Your task to perform on an android device: Open the calendar app, open the side menu, and click the "Day" option Image 0: 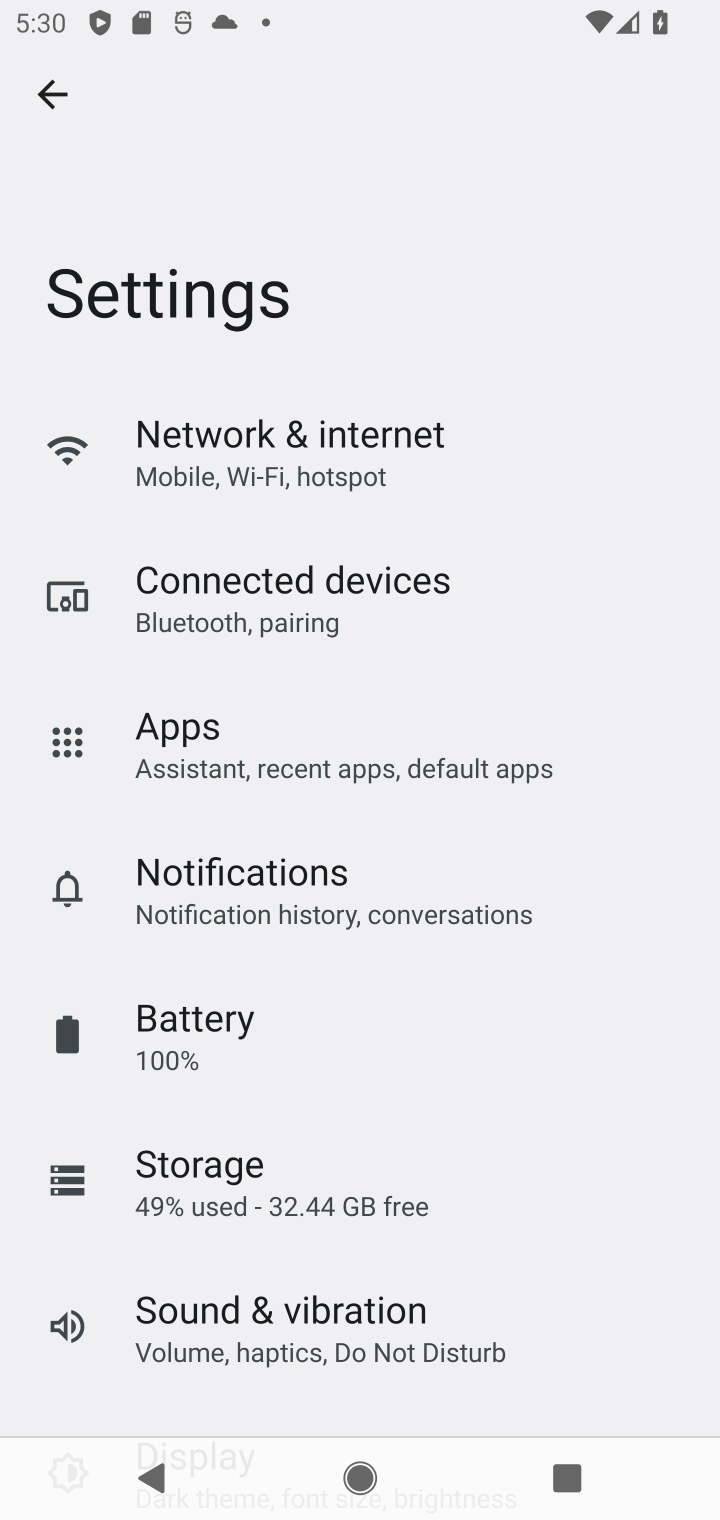
Step 0: press home button
Your task to perform on an android device: Open the calendar app, open the side menu, and click the "Day" option Image 1: 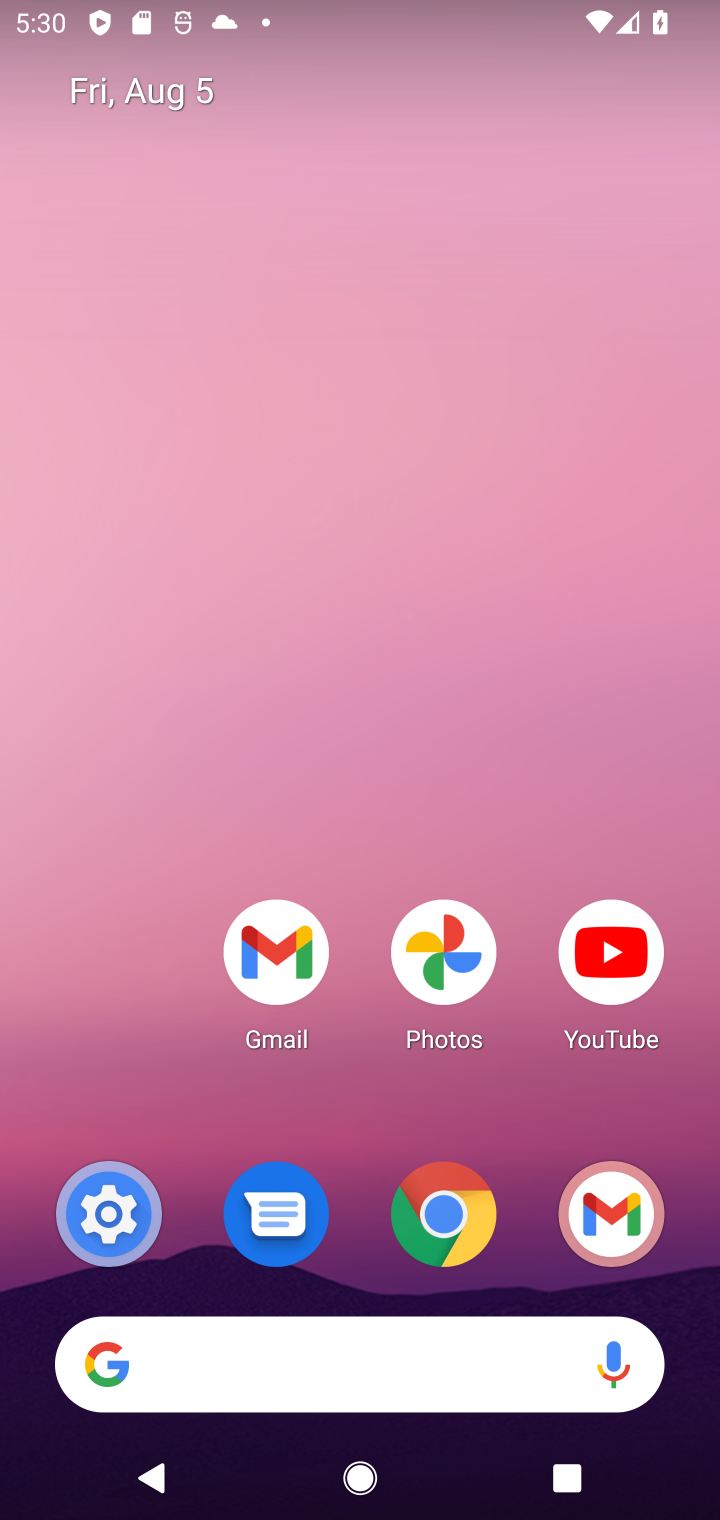
Step 1: drag from (156, 1038) to (264, 0)
Your task to perform on an android device: Open the calendar app, open the side menu, and click the "Day" option Image 2: 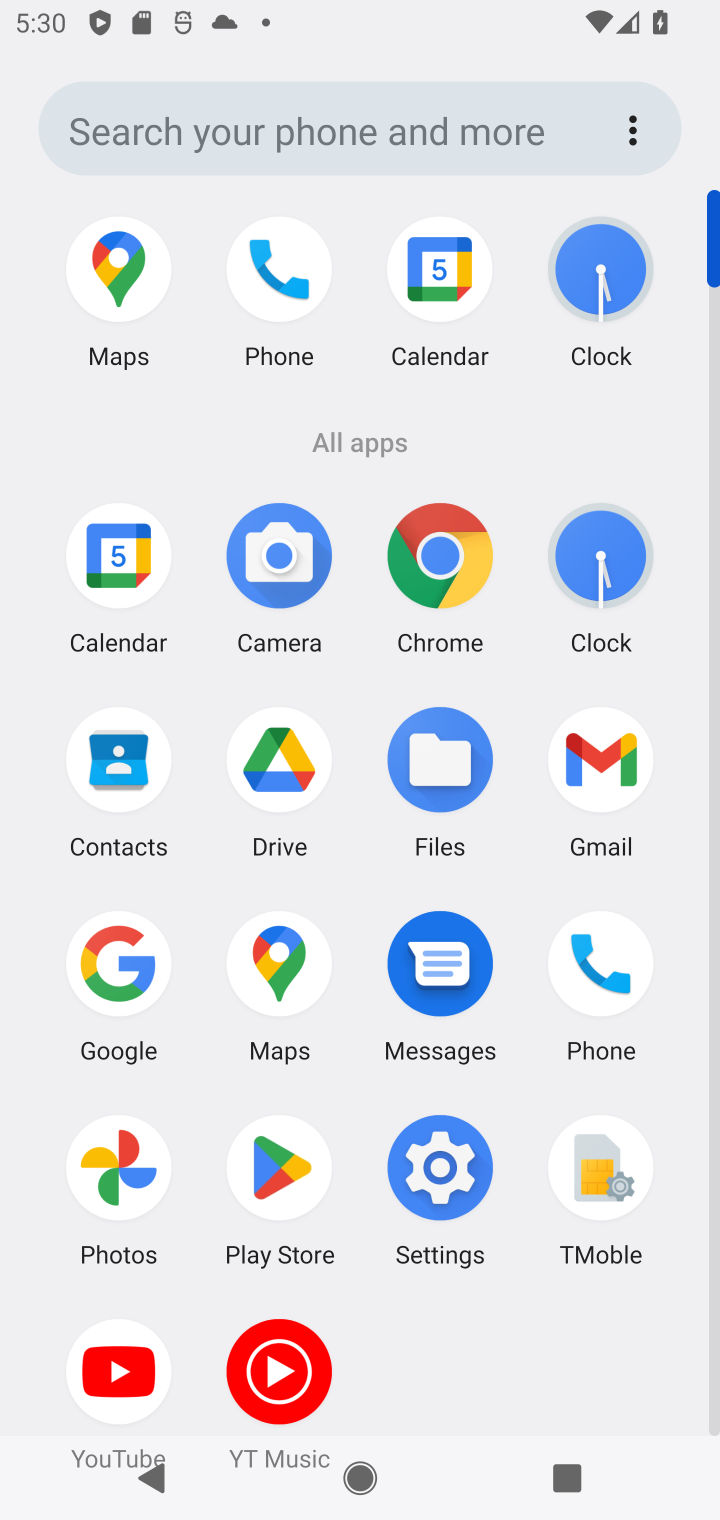
Step 2: click (135, 573)
Your task to perform on an android device: Open the calendar app, open the side menu, and click the "Day" option Image 3: 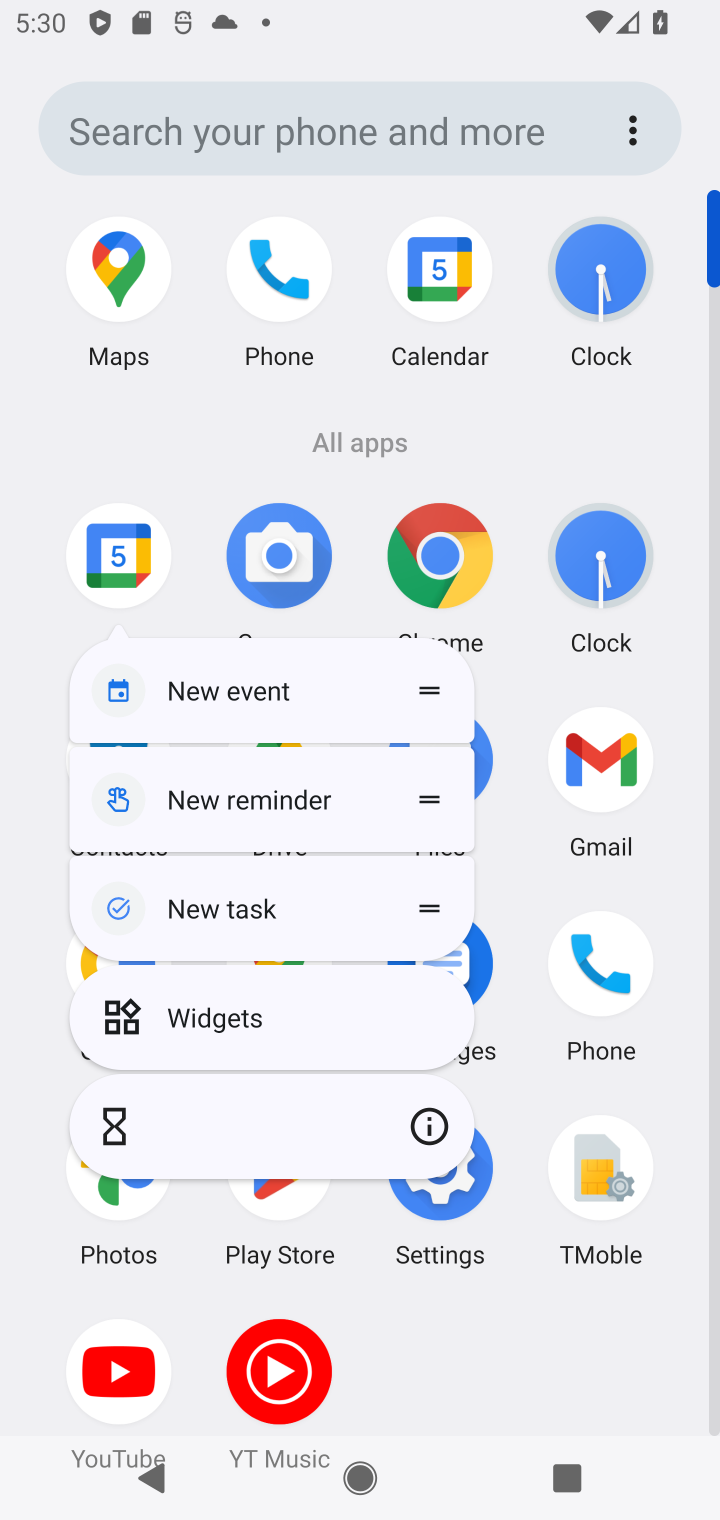
Step 3: click (125, 541)
Your task to perform on an android device: Open the calendar app, open the side menu, and click the "Day" option Image 4: 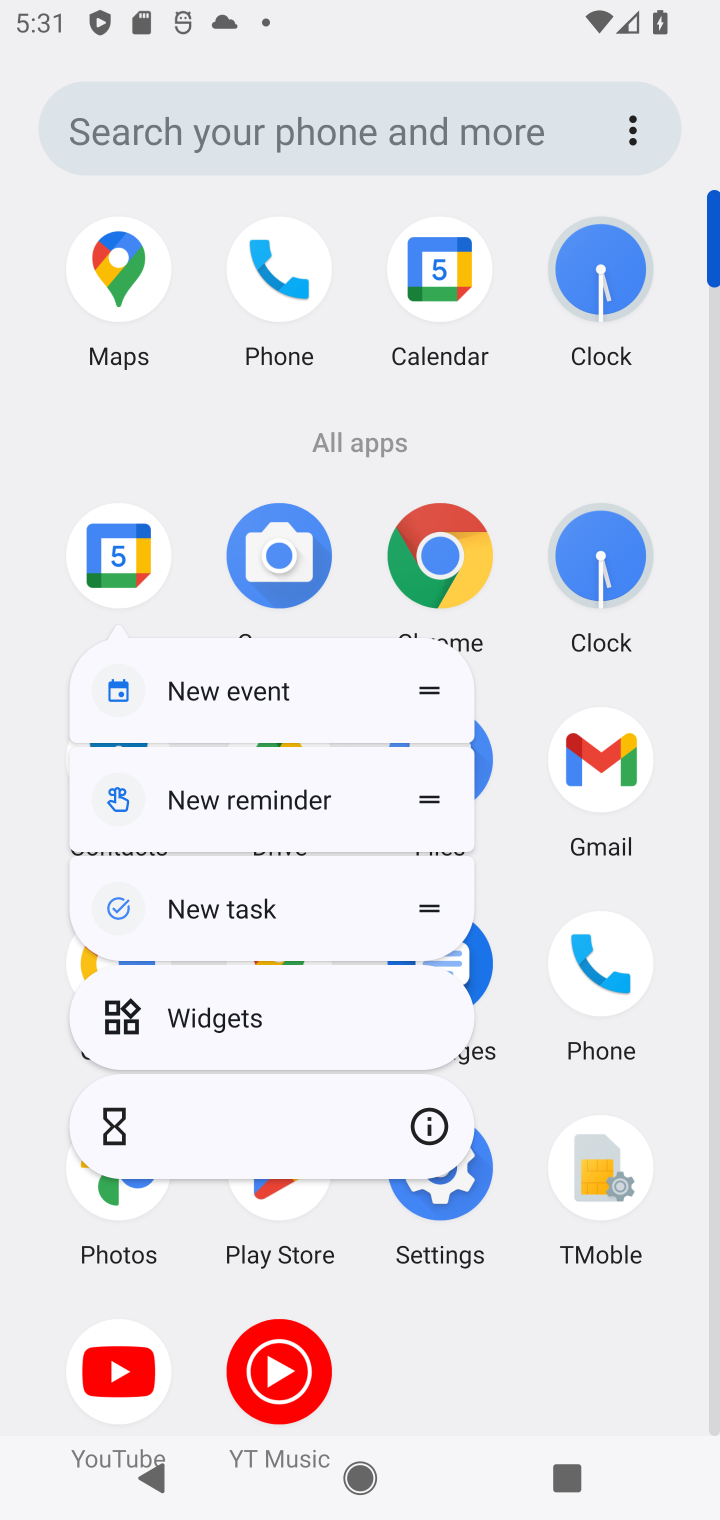
Step 4: click (125, 544)
Your task to perform on an android device: Open the calendar app, open the side menu, and click the "Day" option Image 5: 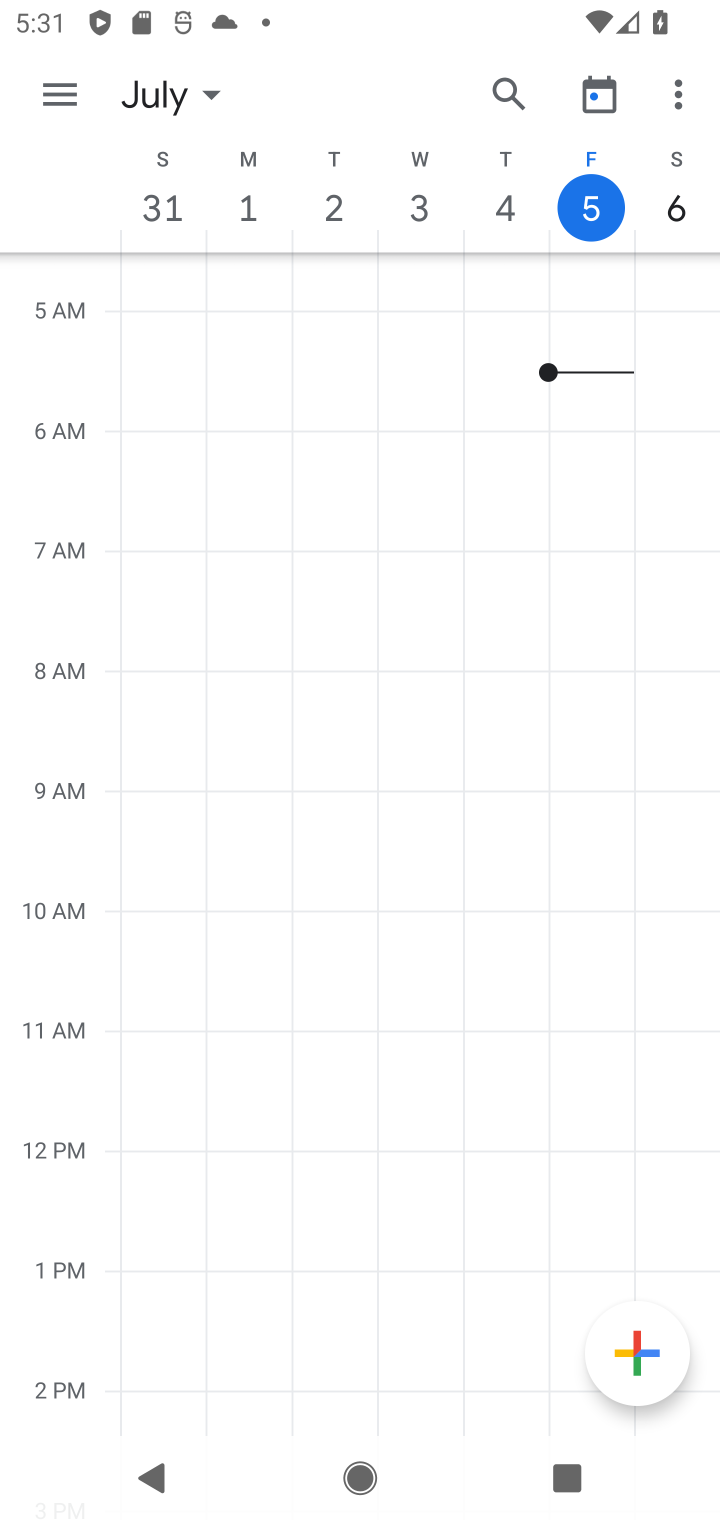
Step 5: drag from (397, 425) to (386, 1309)
Your task to perform on an android device: Open the calendar app, open the side menu, and click the "Day" option Image 6: 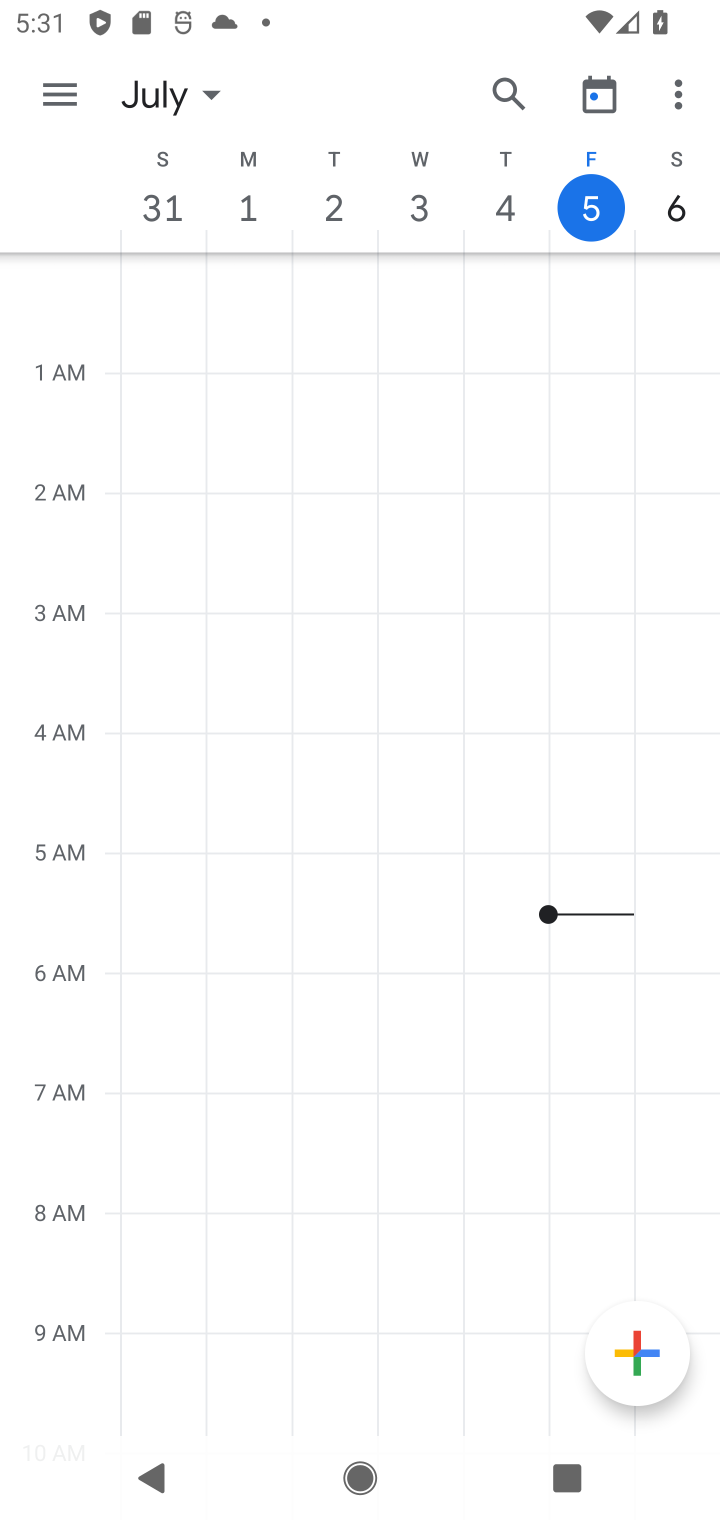
Step 6: drag from (390, 985) to (438, 56)
Your task to perform on an android device: Open the calendar app, open the side menu, and click the "Day" option Image 7: 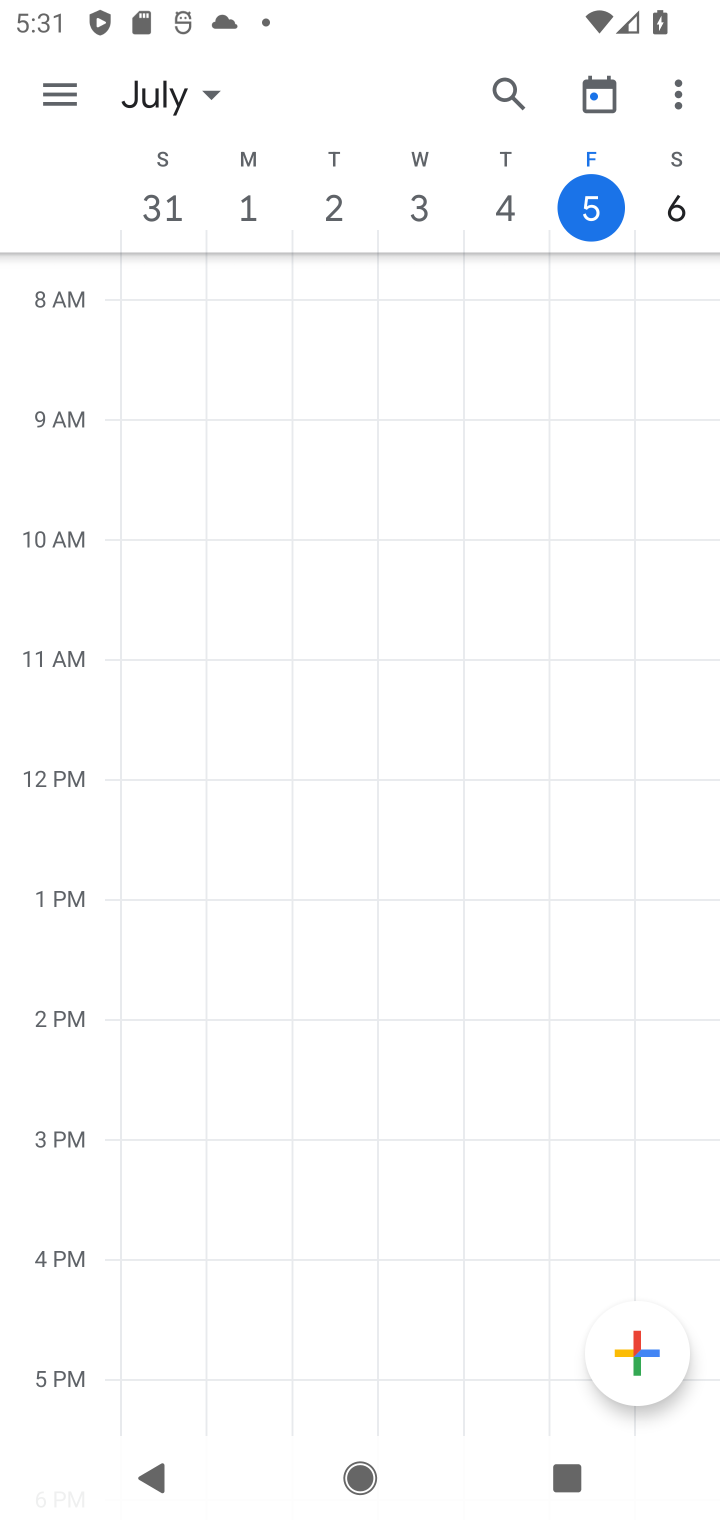
Step 7: drag from (378, 1067) to (435, 64)
Your task to perform on an android device: Open the calendar app, open the side menu, and click the "Day" option Image 8: 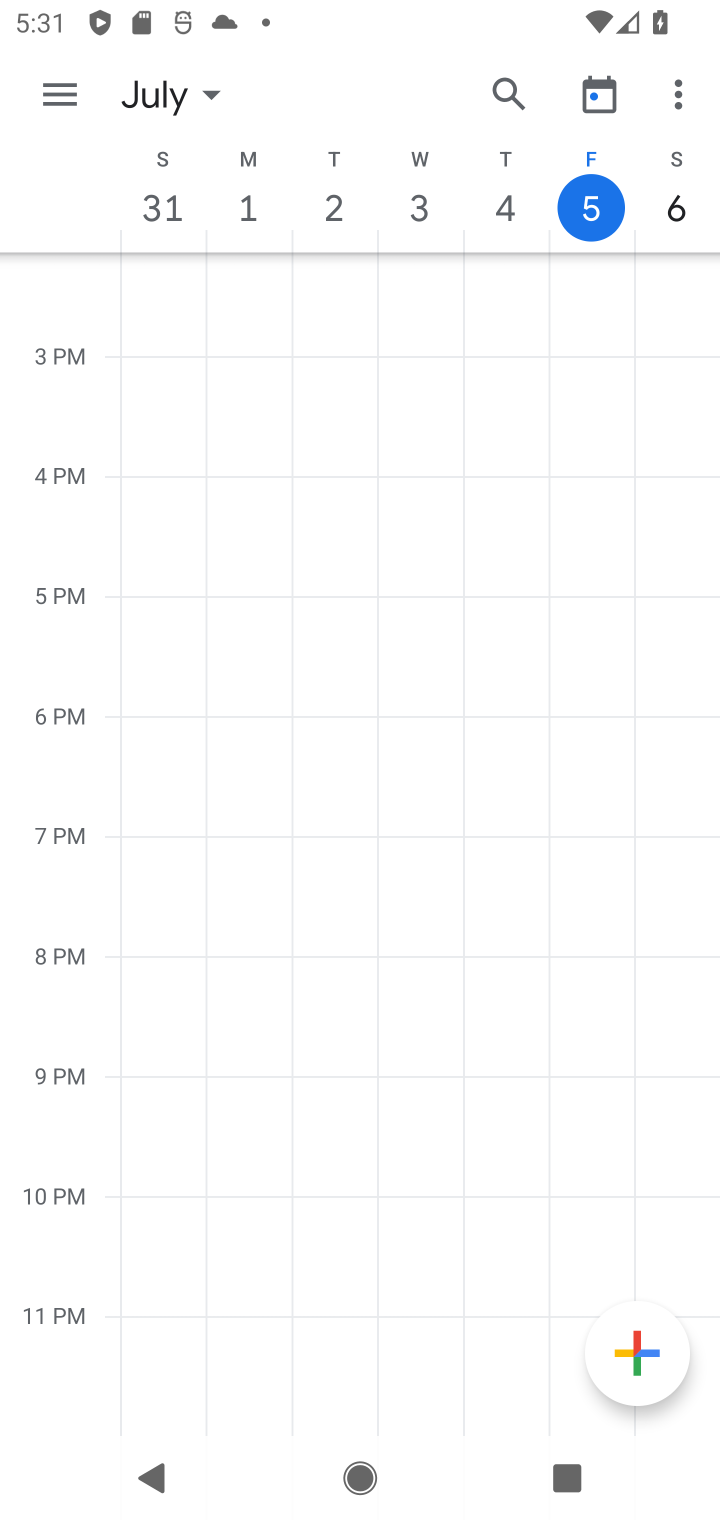
Step 8: click (69, 96)
Your task to perform on an android device: Open the calendar app, open the side menu, and click the "Day" option Image 9: 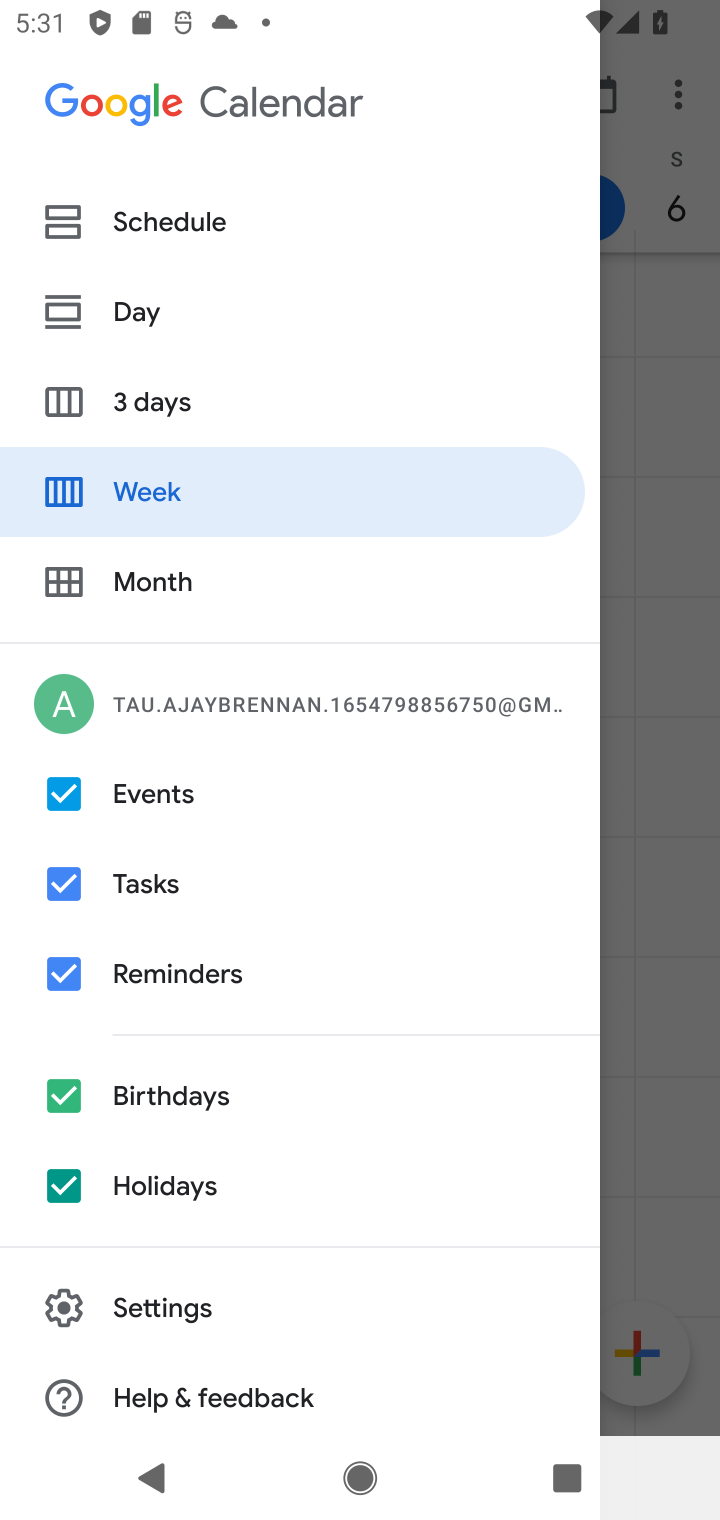
Step 9: click (58, 290)
Your task to perform on an android device: Open the calendar app, open the side menu, and click the "Day" option Image 10: 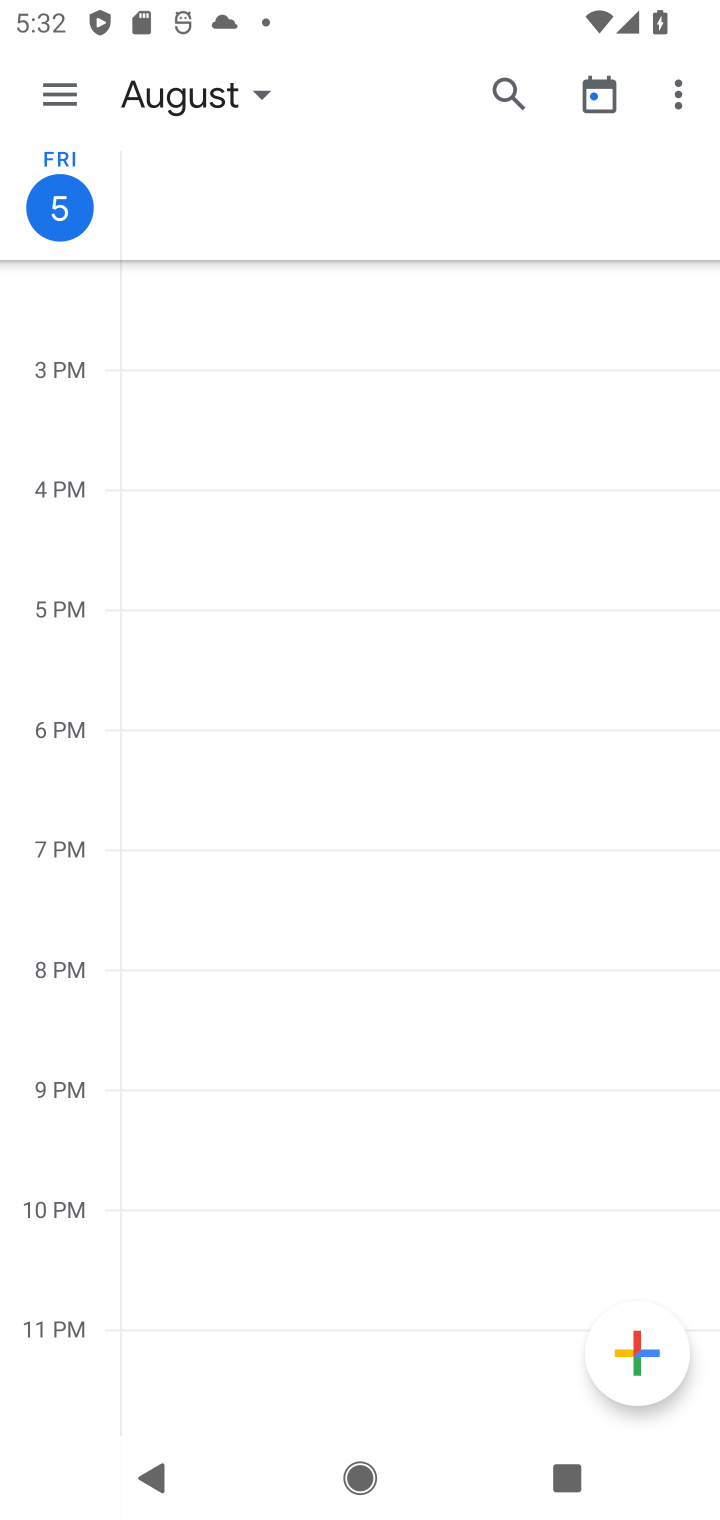
Step 10: task complete